Your task to perform on an android device: open app "Upside-Cash back on gas & food" (install if not already installed) Image 0: 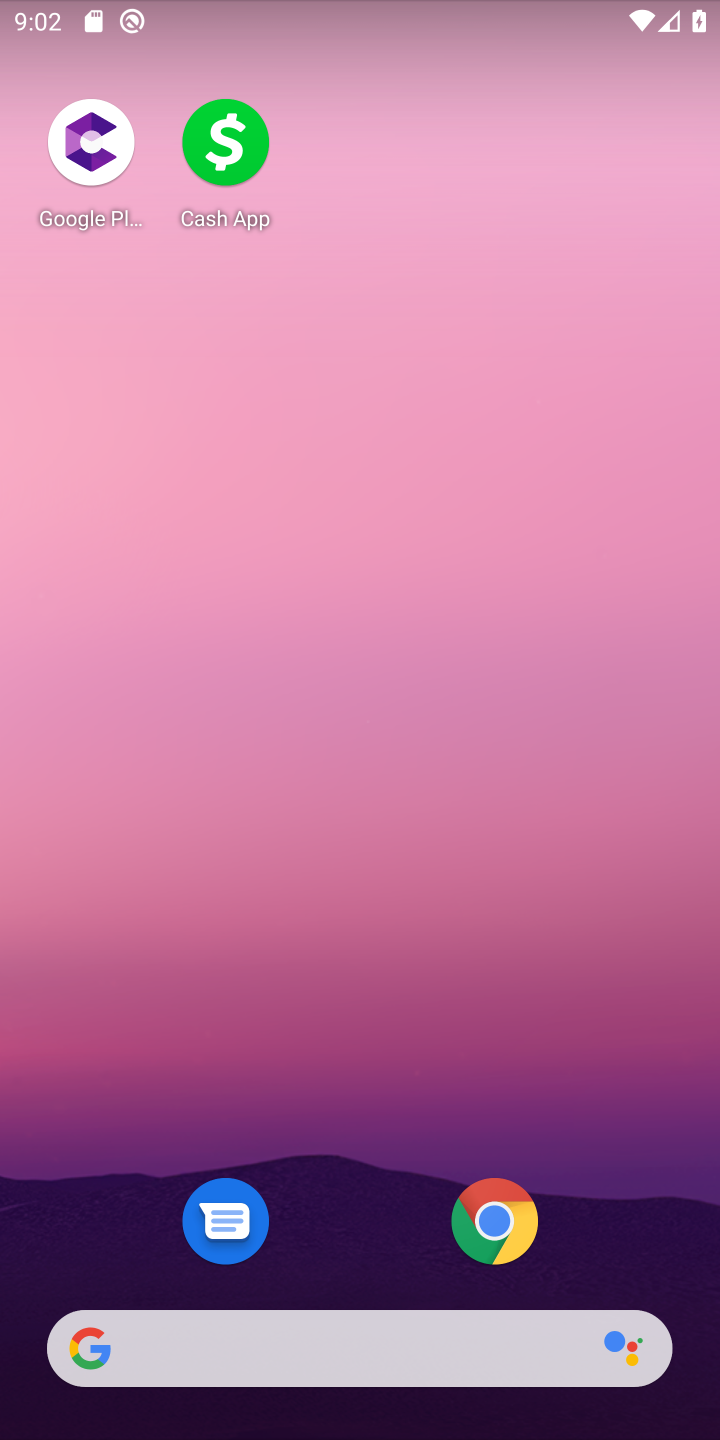
Step 0: drag from (341, 1139) to (346, 249)
Your task to perform on an android device: open app "Upside-Cash back on gas & food" (install if not already installed) Image 1: 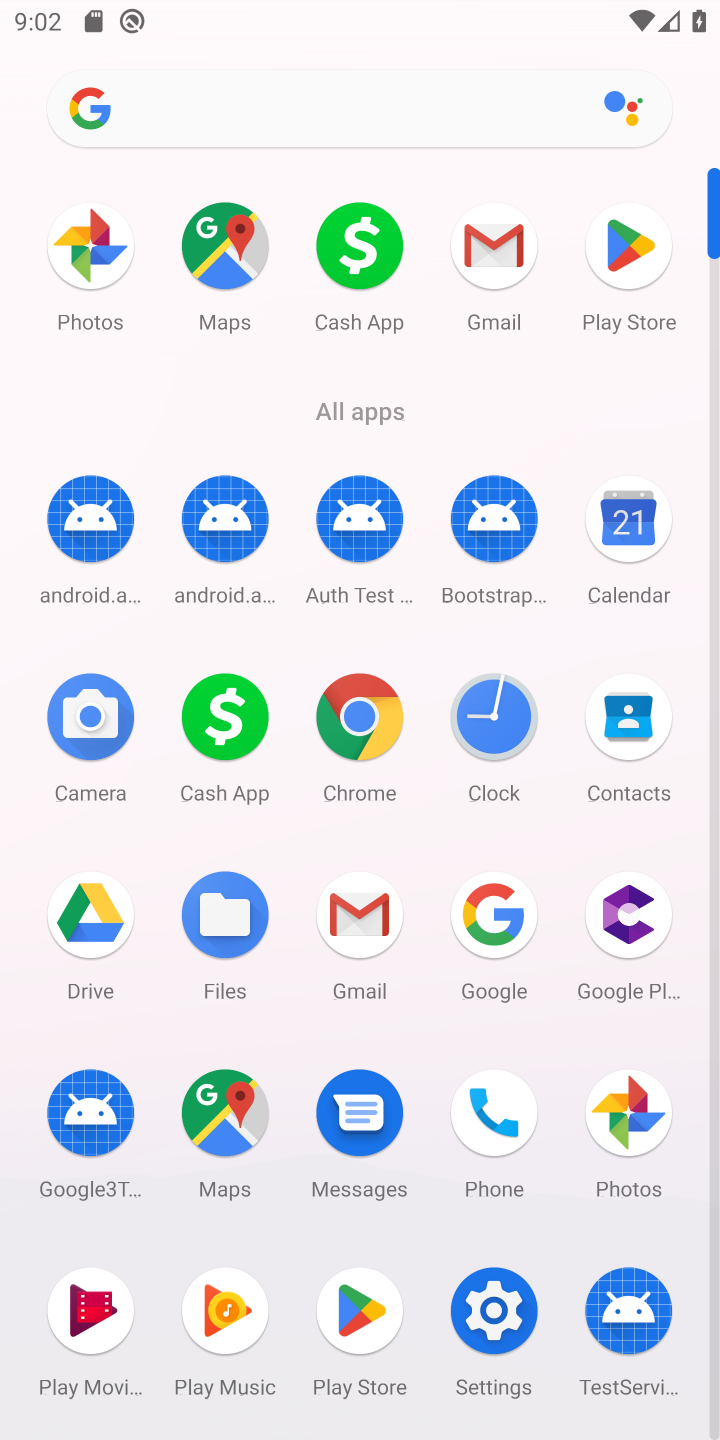
Step 1: click (618, 228)
Your task to perform on an android device: open app "Upside-Cash back on gas & food" (install if not already installed) Image 2: 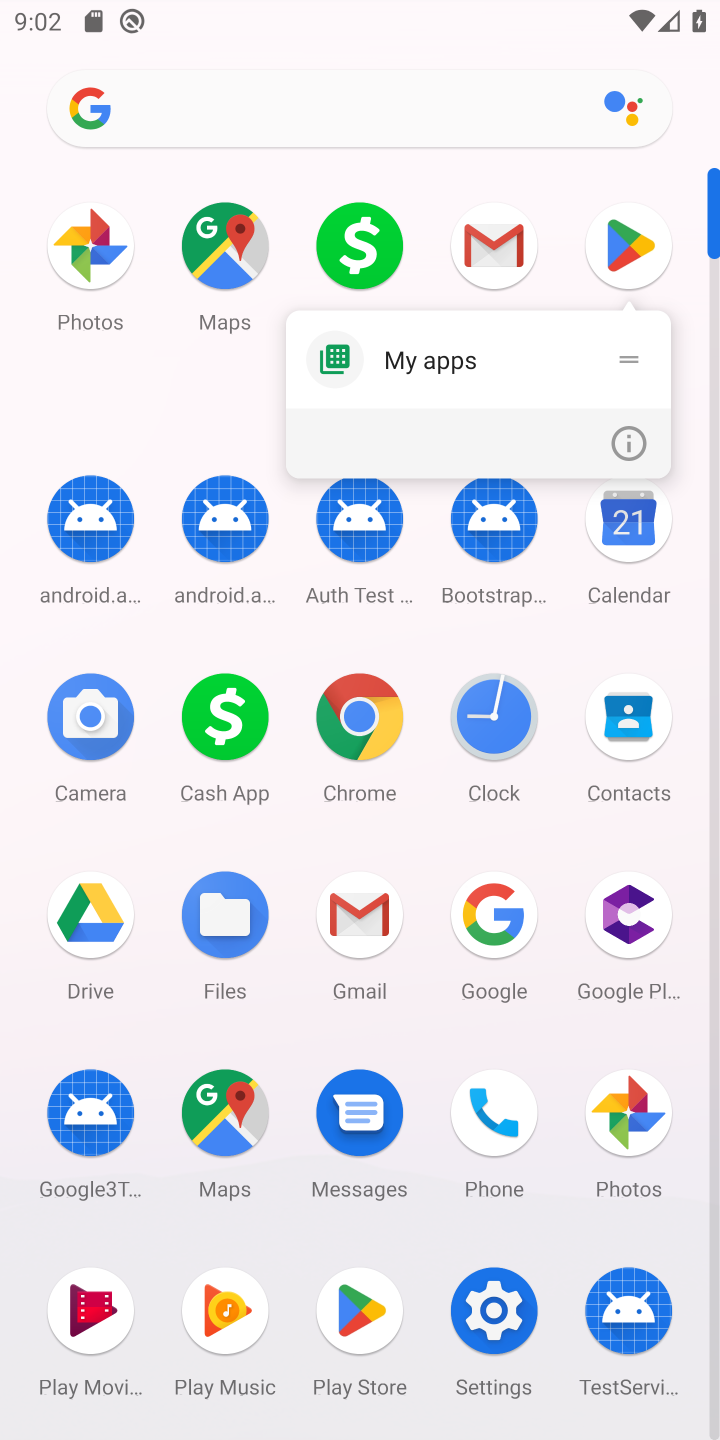
Step 2: click (609, 246)
Your task to perform on an android device: open app "Upside-Cash back on gas & food" (install if not already installed) Image 3: 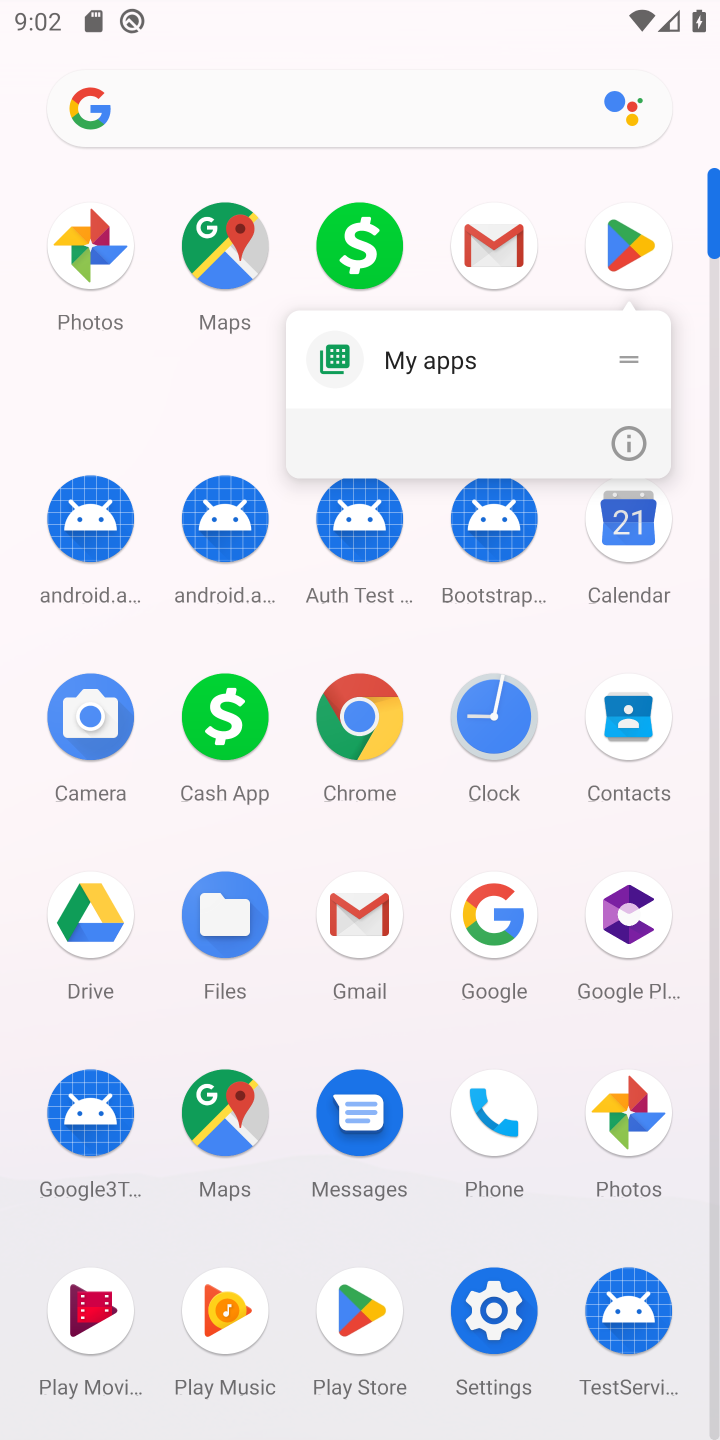
Step 3: click (609, 246)
Your task to perform on an android device: open app "Upside-Cash back on gas & food" (install if not already installed) Image 4: 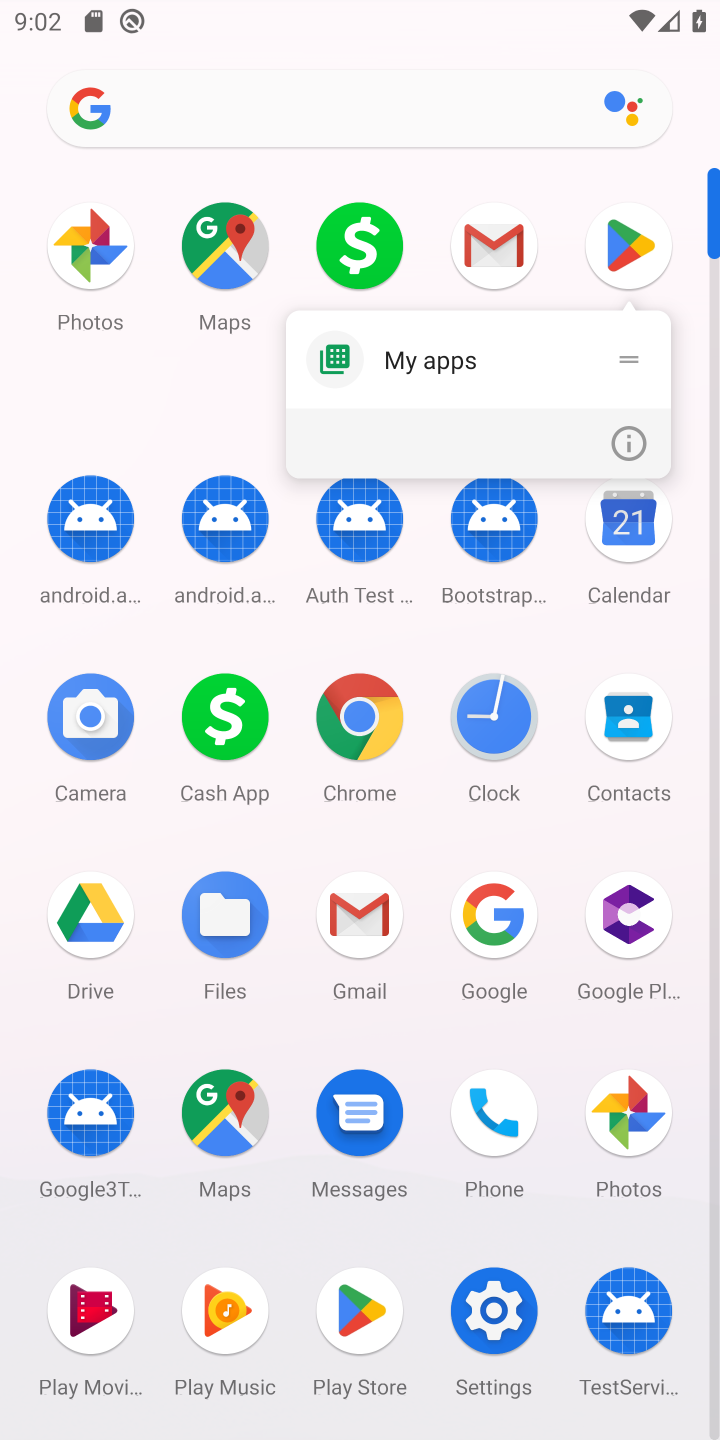
Step 4: click (633, 218)
Your task to perform on an android device: open app "Upside-Cash back on gas & food" (install if not already installed) Image 5: 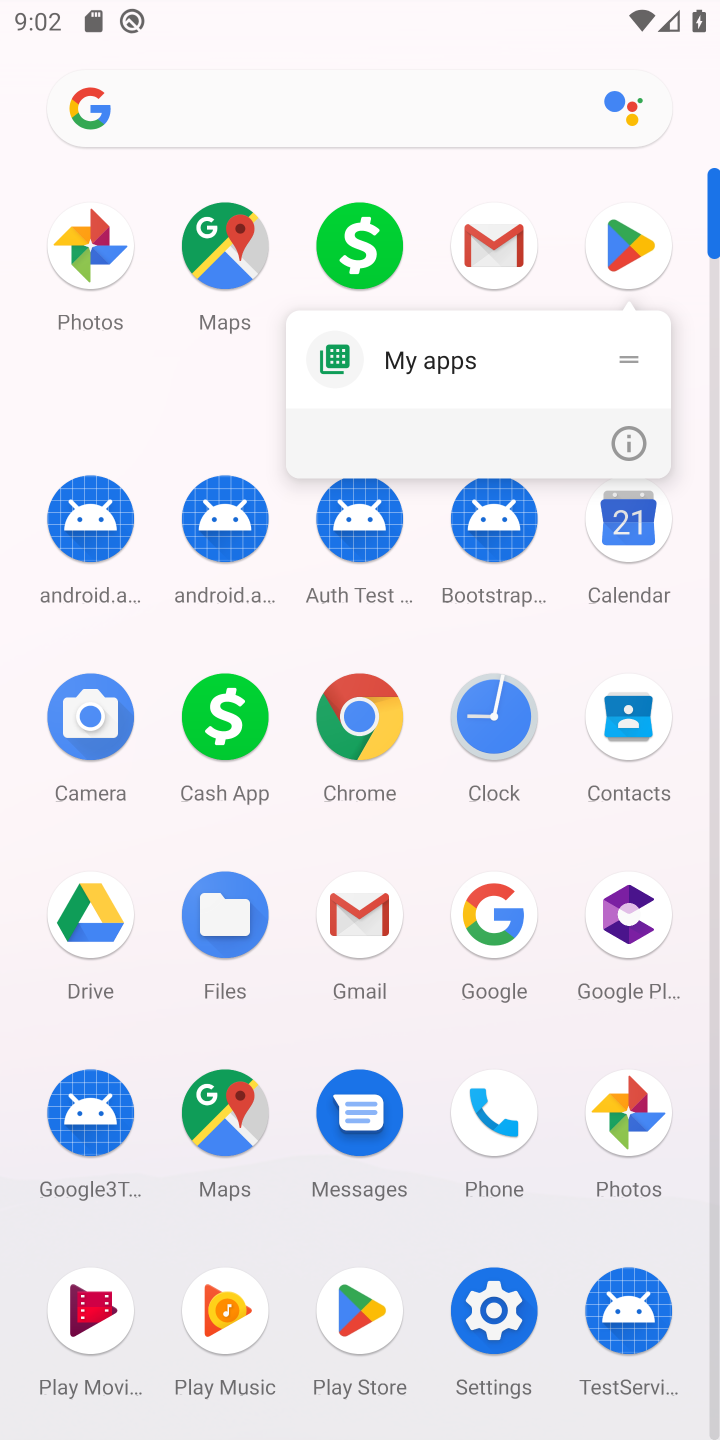
Step 5: click (612, 241)
Your task to perform on an android device: open app "Upside-Cash back on gas & food" (install if not already installed) Image 6: 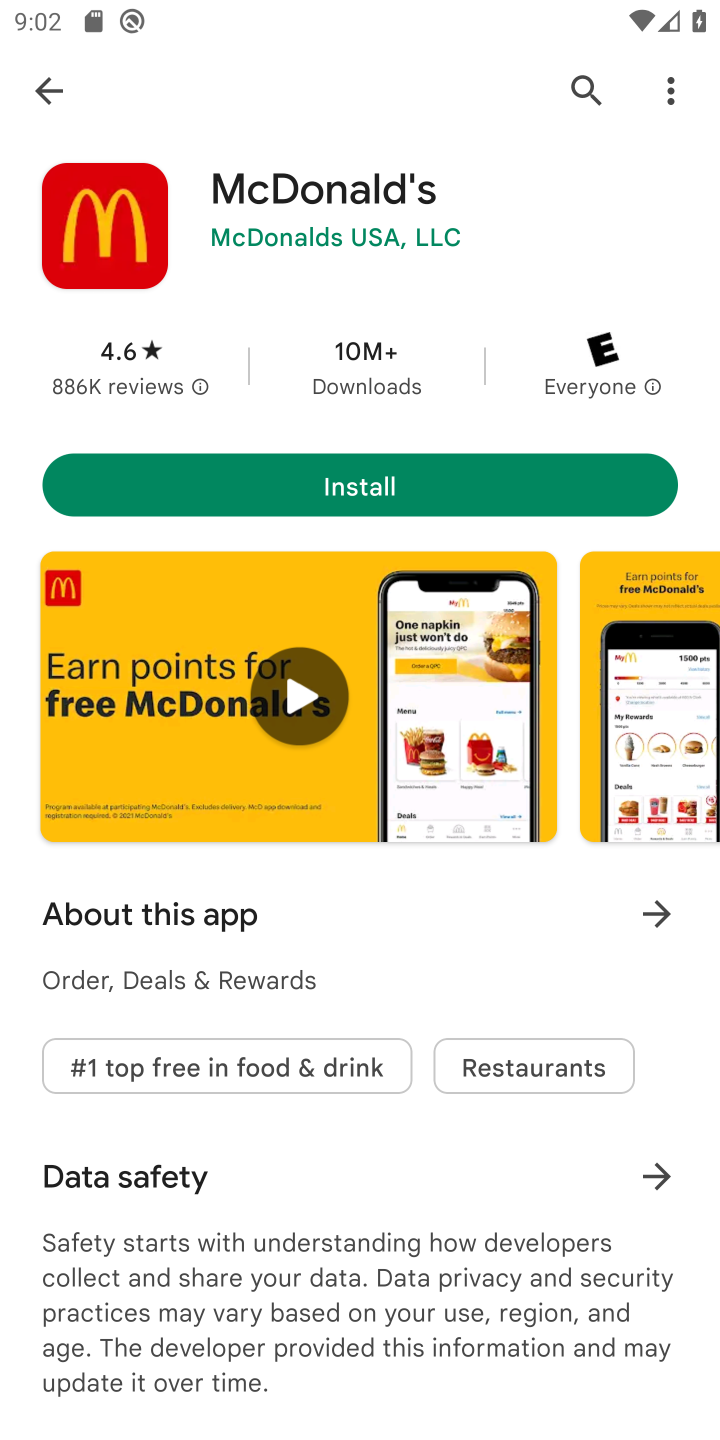
Step 6: click (578, 88)
Your task to perform on an android device: open app "Upside-Cash back on gas & food" (install if not already installed) Image 7: 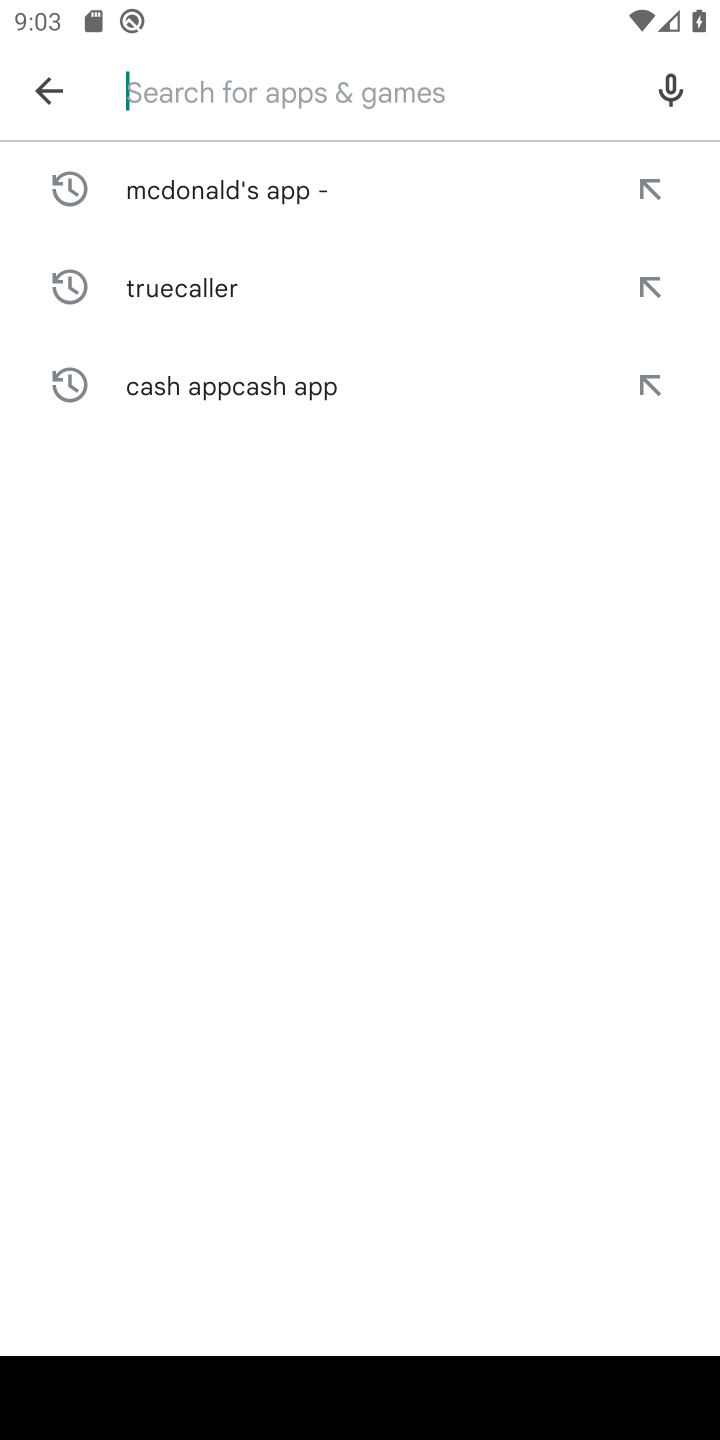
Step 7: type "Upside-Cash back on gas & food"
Your task to perform on an android device: open app "Upside-Cash back on gas & food" (install if not already installed) Image 8: 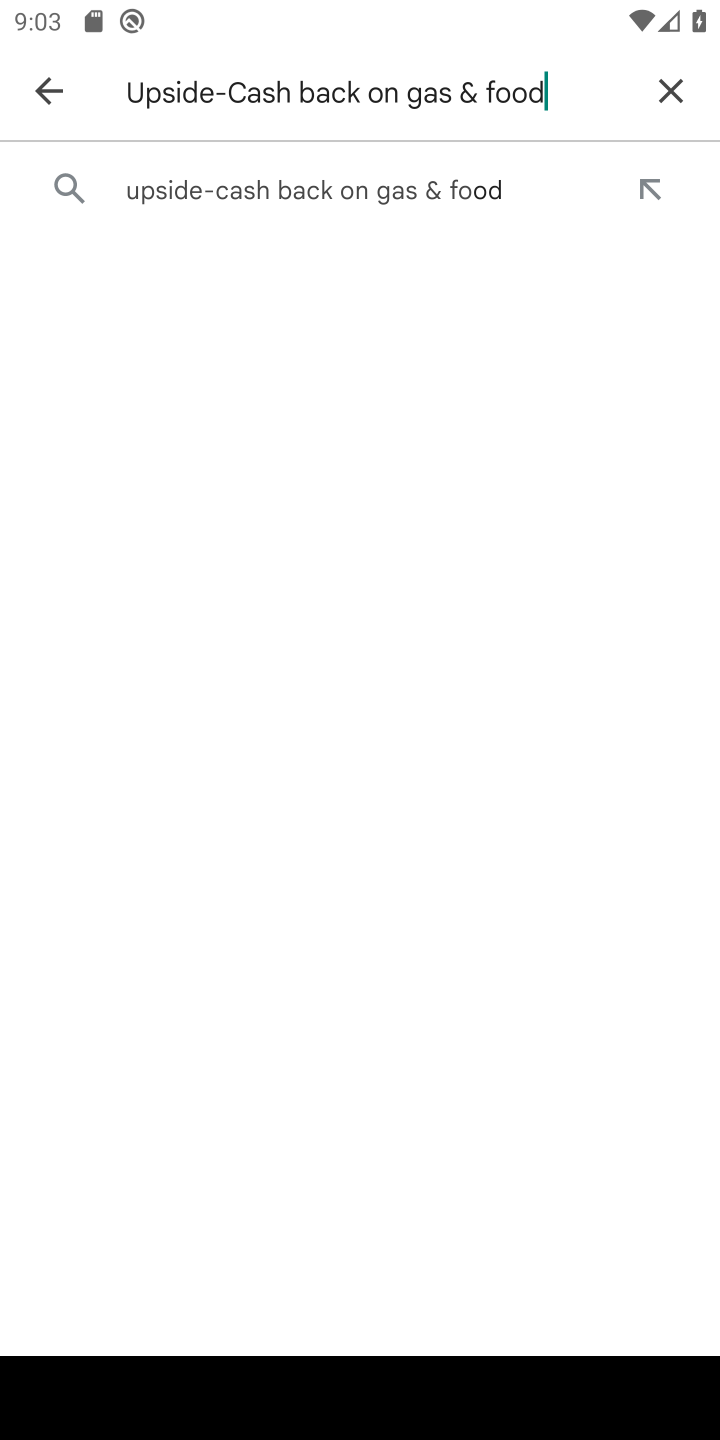
Step 8: type ""
Your task to perform on an android device: open app "Upside-Cash back on gas & food" (install if not already installed) Image 9: 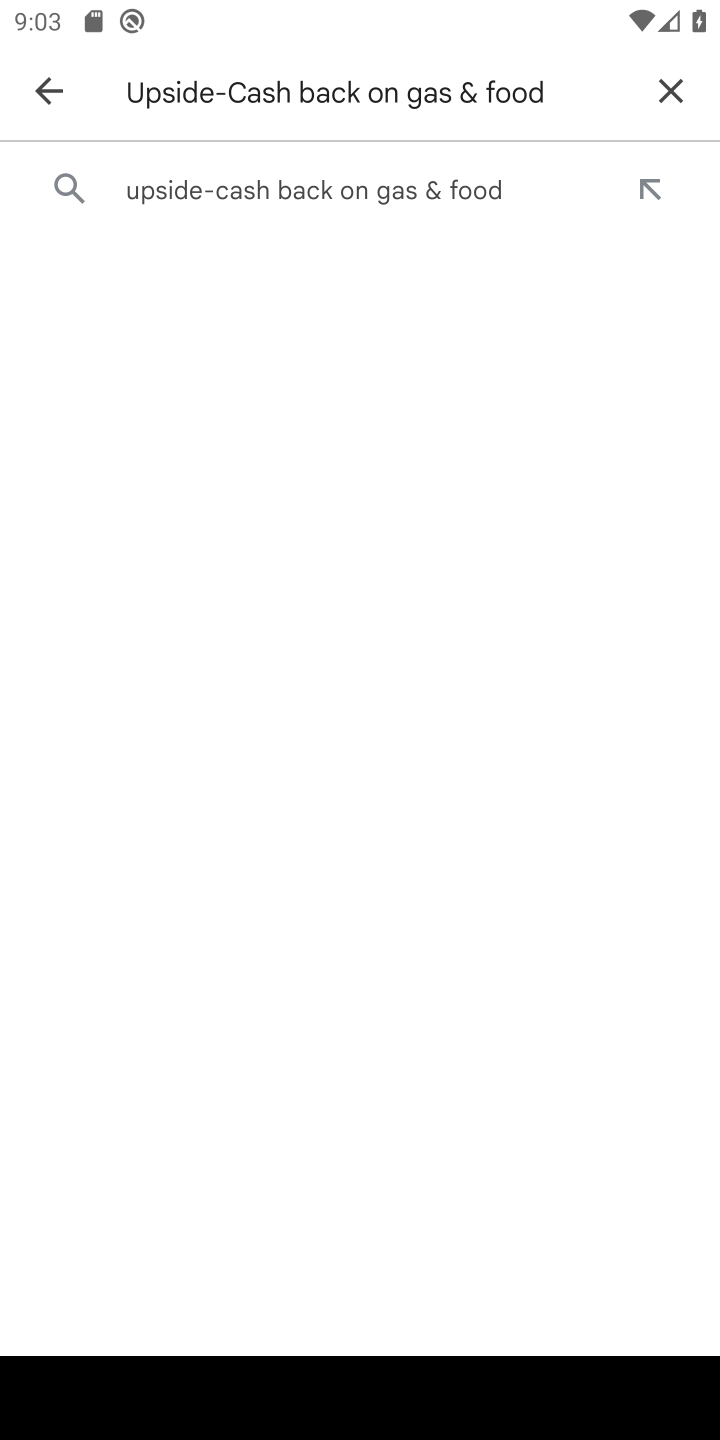
Step 9: click (383, 202)
Your task to perform on an android device: open app "Upside-Cash back on gas & food" (install if not already installed) Image 10: 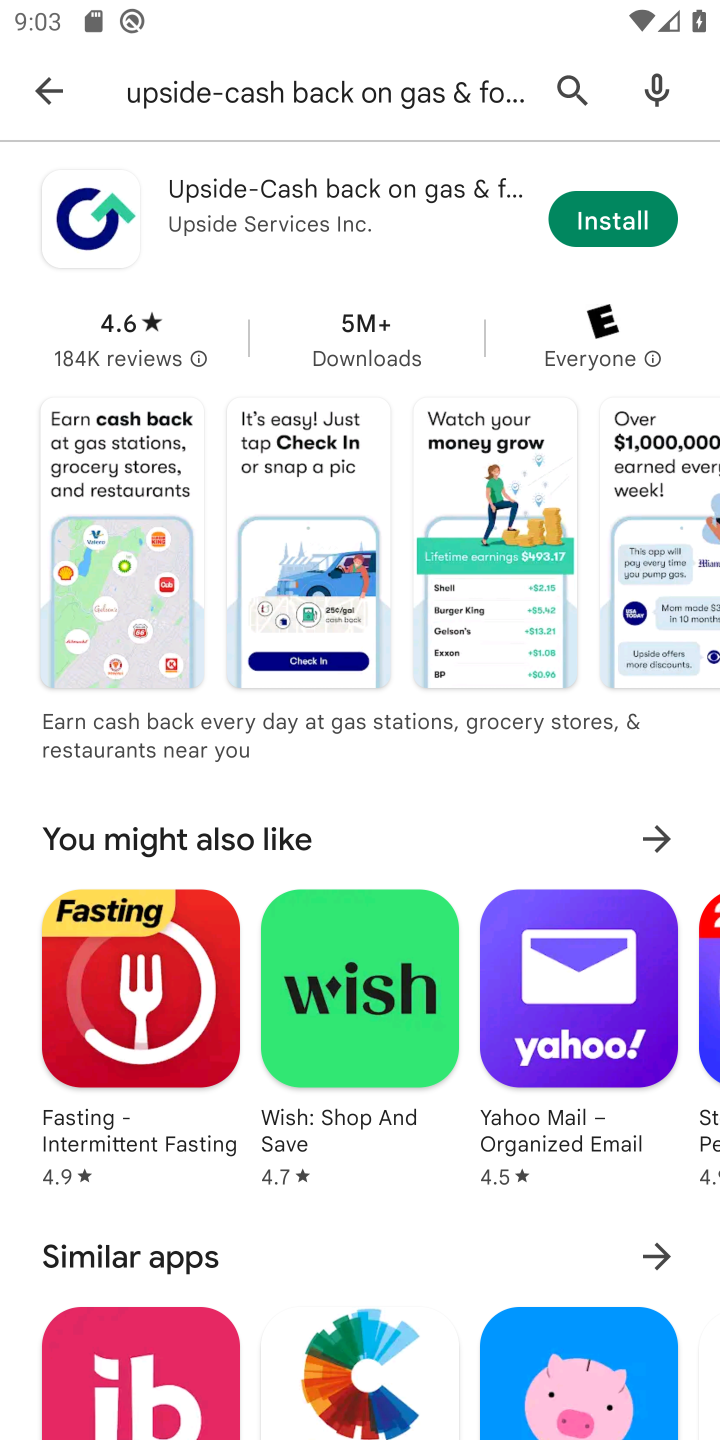
Step 10: click (606, 218)
Your task to perform on an android device: open app "Upside-Cash back on gas & food" (install if not already installed) Image 11: 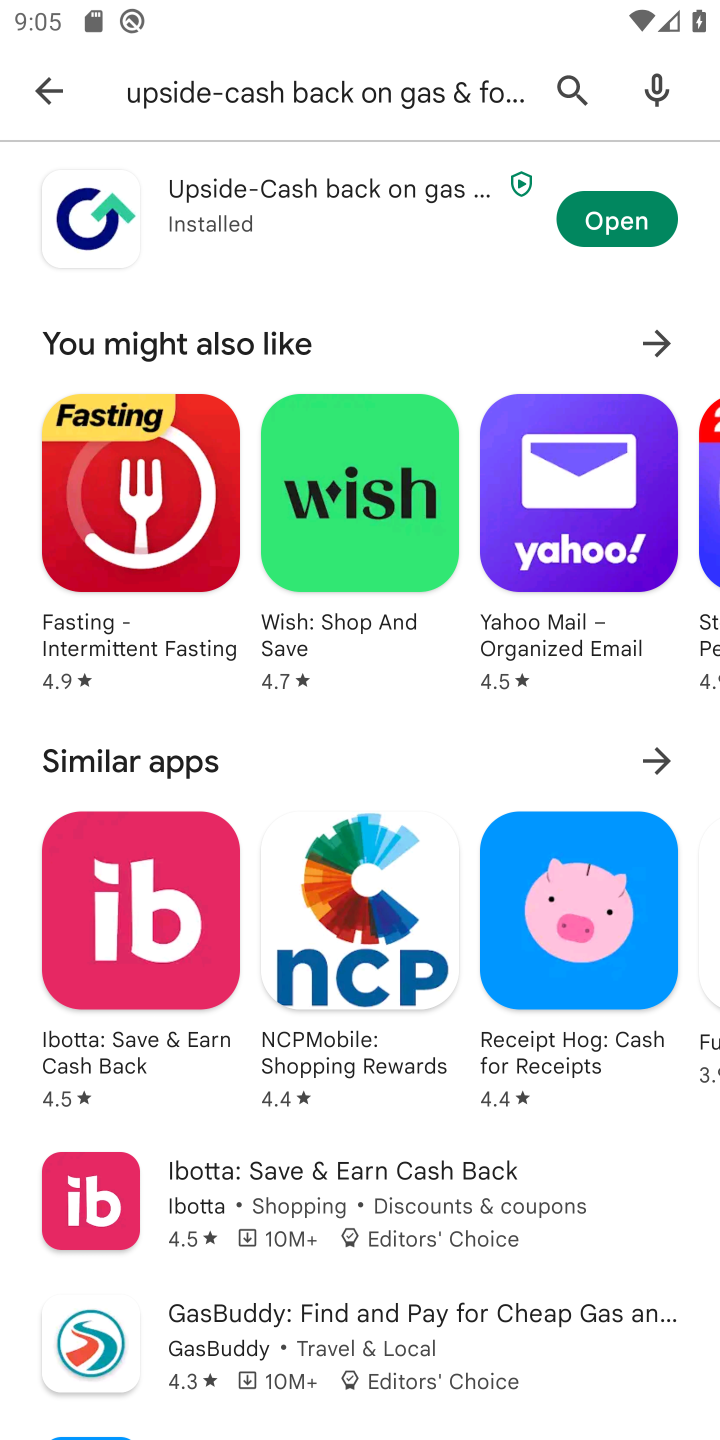
Step 11: click (637, 218)
Your task to perform on an android device: open app "Upside-Cash back on gas & food" (install if not already installed) Image 12: 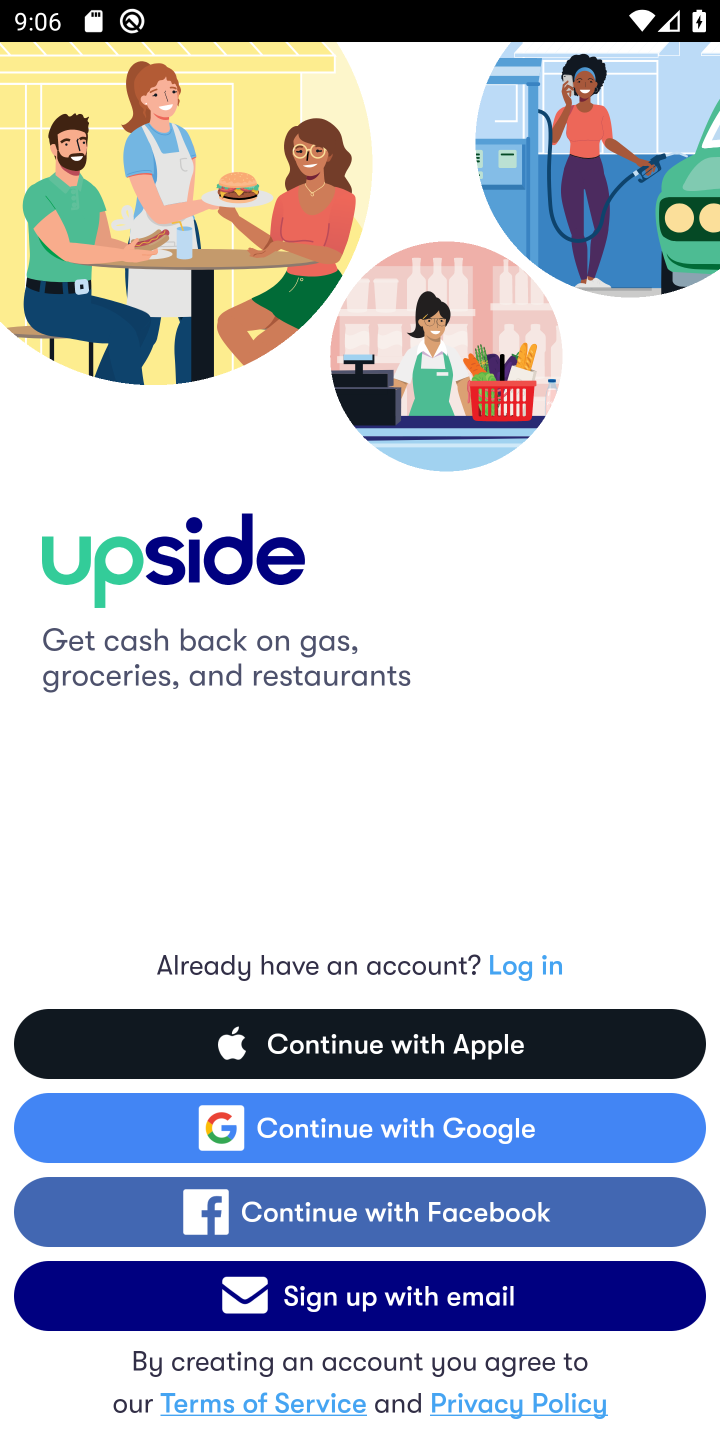
Step 12: task complete